Your task to perform on an android device: Open location settings Image 0: 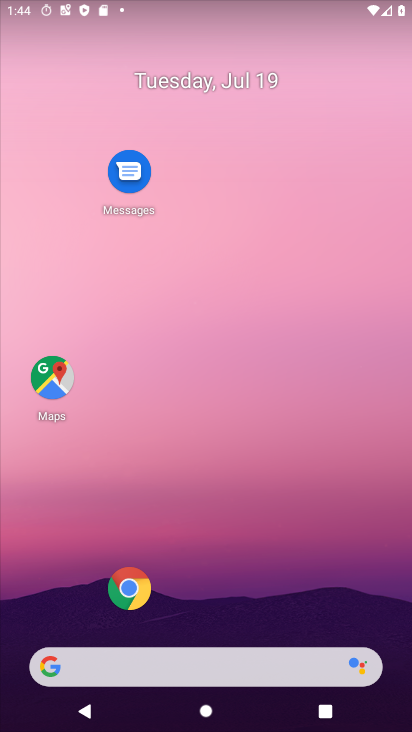
Step 0: drag from (36, 703) to (153, 241)
Your task to perform on an android device: Open location settings Image 1: 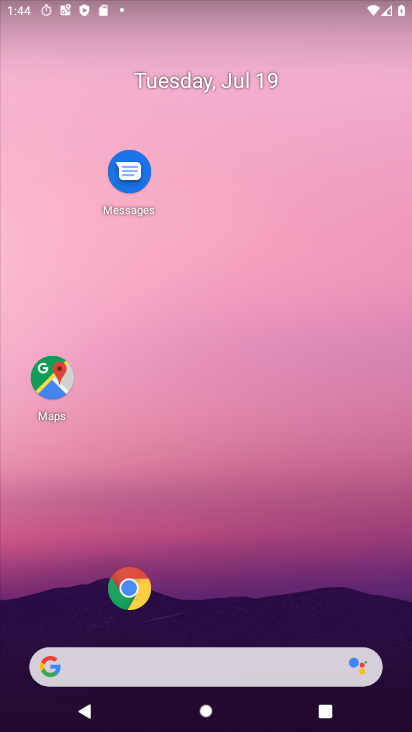
Step 1: drag from (40, 692) to (222, 223)
Your task to perform on an android device: Open location settings Image 2: 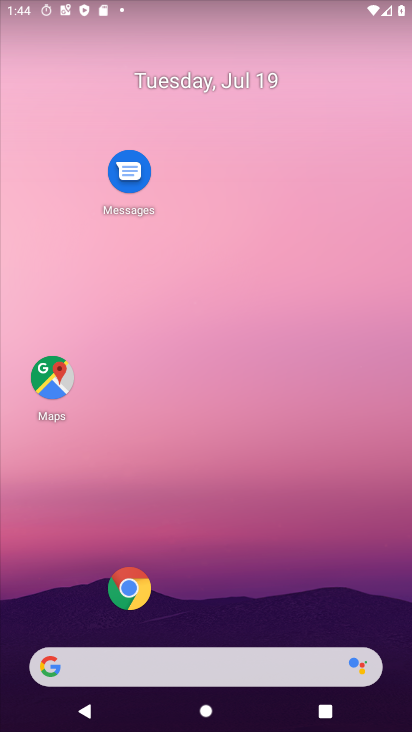
Step 2: drag from (15, 697) to (290, 67)
Your task to perform on an android device: Open location settings Image 3: 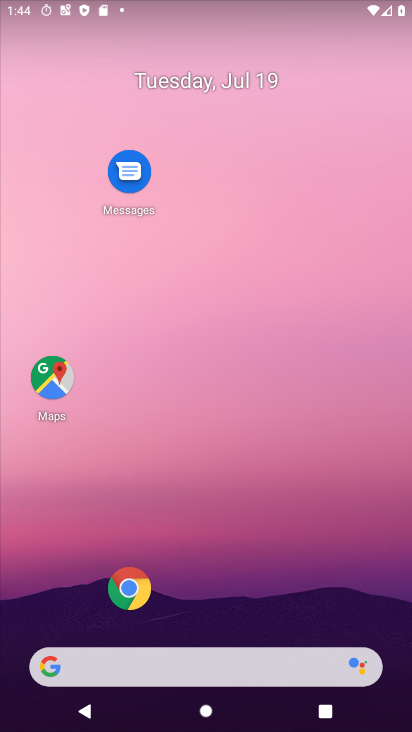
Step 3: drag from (27, 703) to (253, 110)
Your task to perform on an android device: Open location settings Image 4: 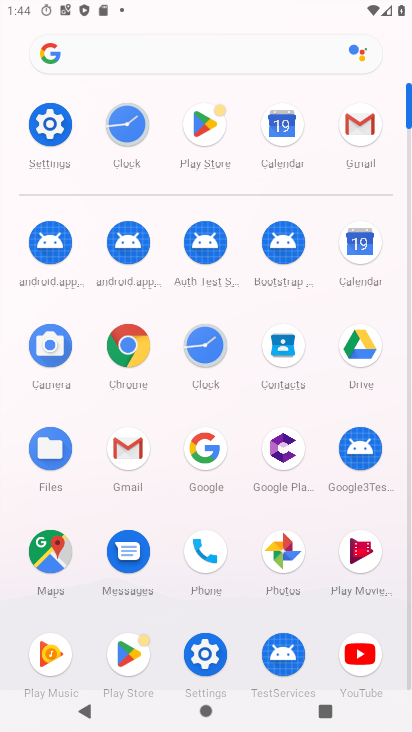
Step 4: click (190, 639)
Your task to perform on an android device: Open location settings Image 5: 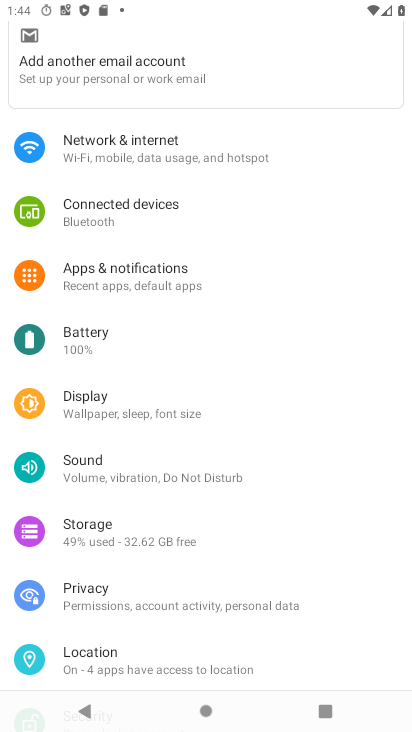
Step 5: click (148, 654)
Your task to perform on an android device: Open location settings Image 6: 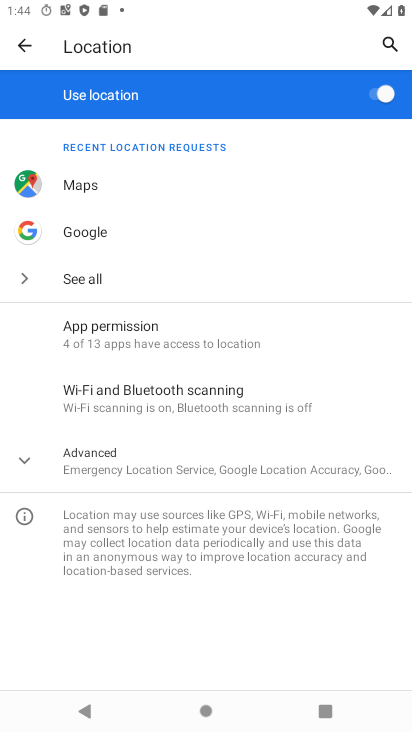
Step 6: click (132, 457)
Your task to perform on an android device: Open location settings Image 7: 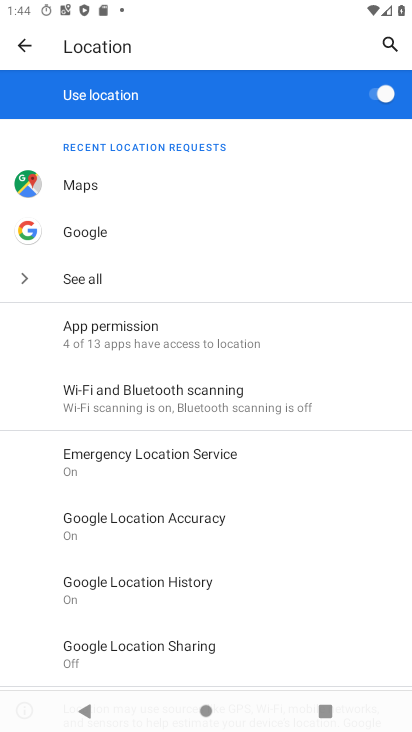
Step 7: task complete